Your task to perform on an android device: turn on translation in the chrome app Image 0: 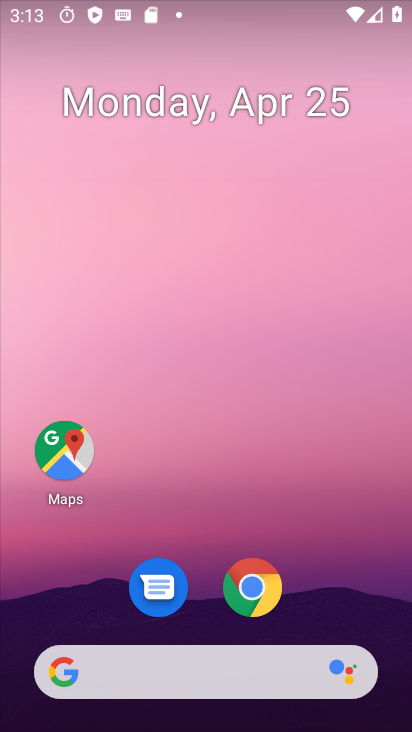
Step 0: drag from (337, 451) to (326, 106)
Your task to perform on an android device: turn on translation in the chrome app Image 1: 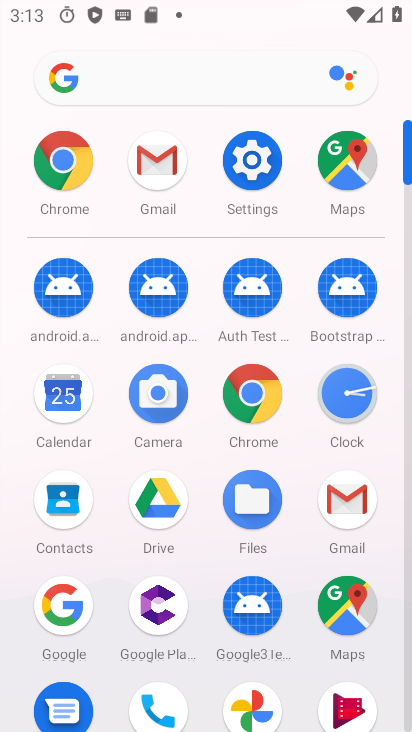
Step 1: click (254, 392)
Your task to perform on an android device: turn on translation in the chrome app Image 2: 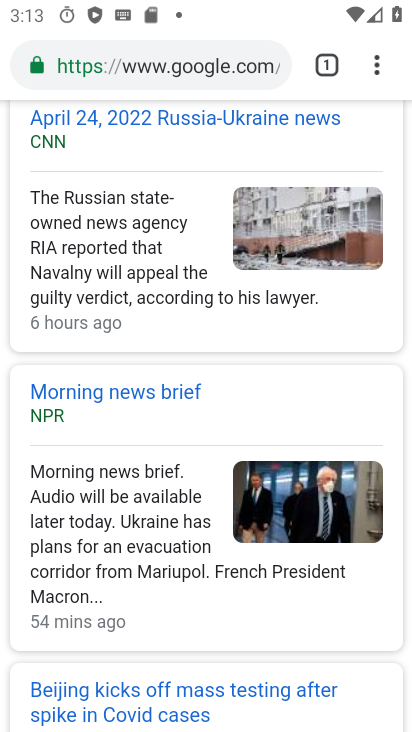
Step 2: drag from (379, 60) to (213, 648)
Your task to perform on an android device: turn on translation in the chrome app Image 3: 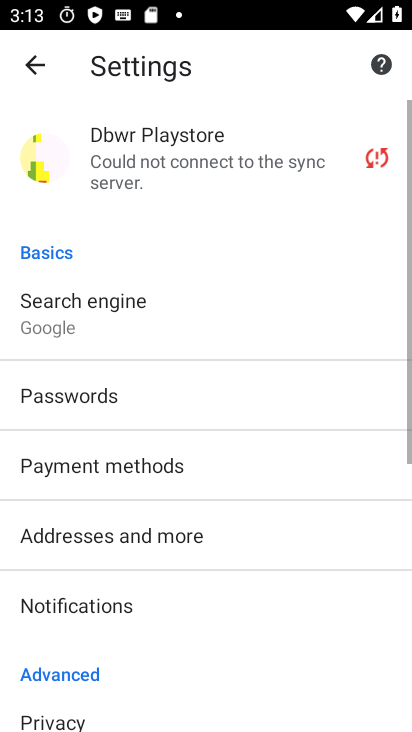
Step 3: drag from (179, 605) to (249, 162)
Your task to perform on an android device: turn on translation in the chrome app Image 4: 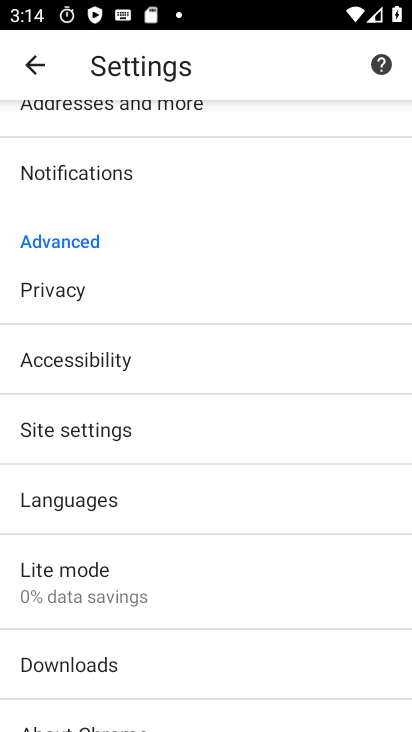
Step 4: click (126, 418)
Your task to perform on an android device: turn on translation in the chrome app Image 5: 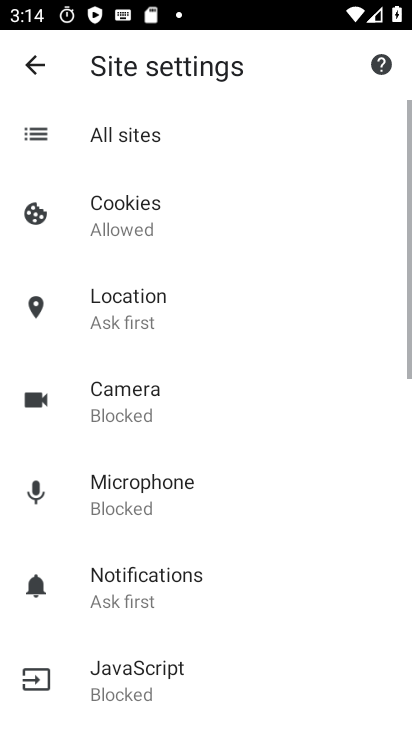
Step 5: click (32, 57)
Your task to perform on an android device: turn on translation in the chrome app Image 6: 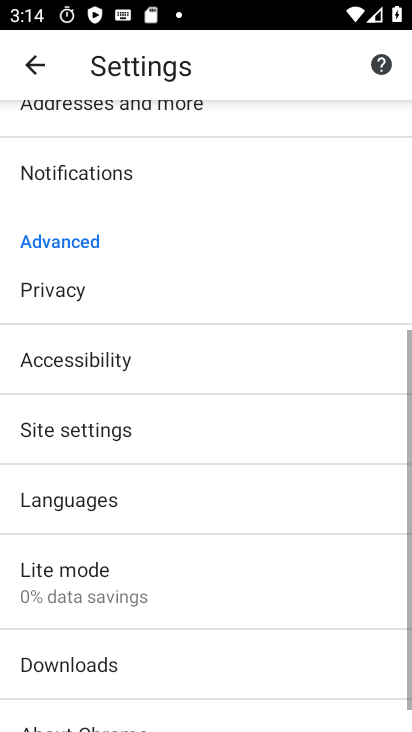
Step 6: click (114, 579)
Your task to perform on an android device: turn on translation in the chrome app Image 7: 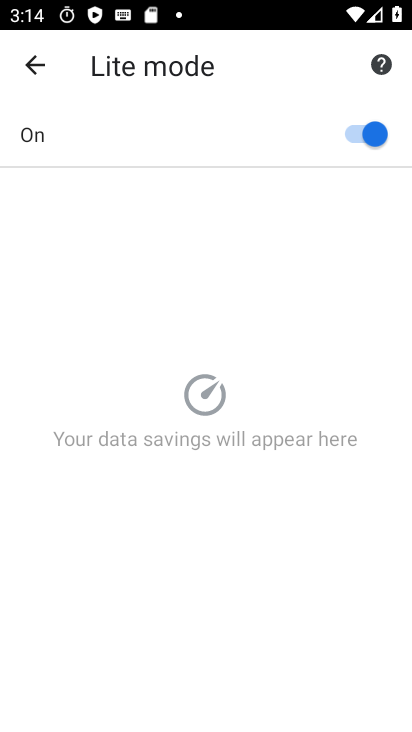
Step 7: click (51, 70)
Your task to perform on an android device: turn on translation in the chrome app Image 8: 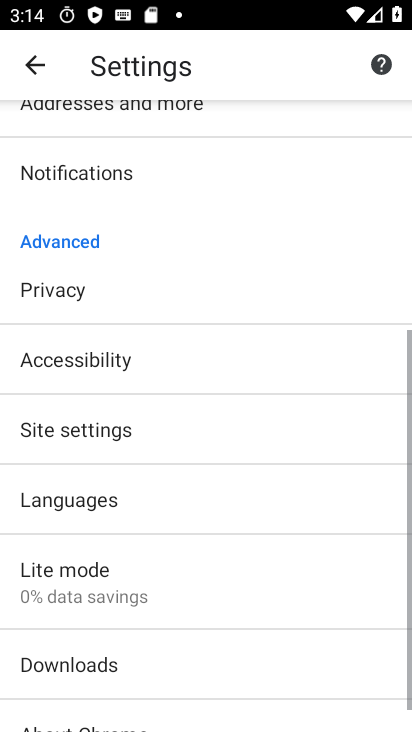
Step 8: click (133, 502)
Your task to perform on an android device: turn on translation in the chrome app Image 9: 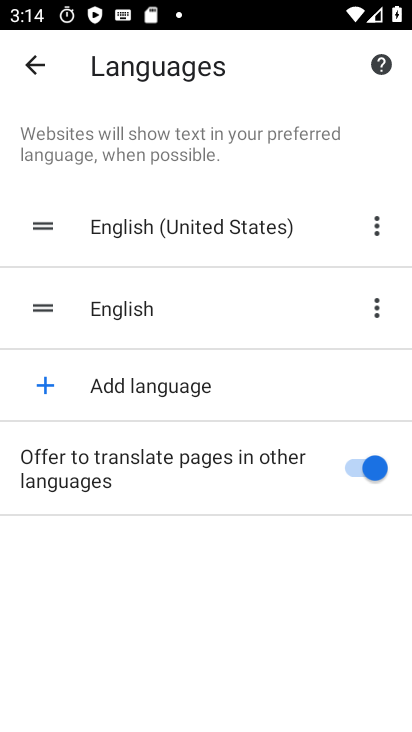
Step 9: task complete